Your task to perform on an android device: turn off data saver in the chrome app Image 0: 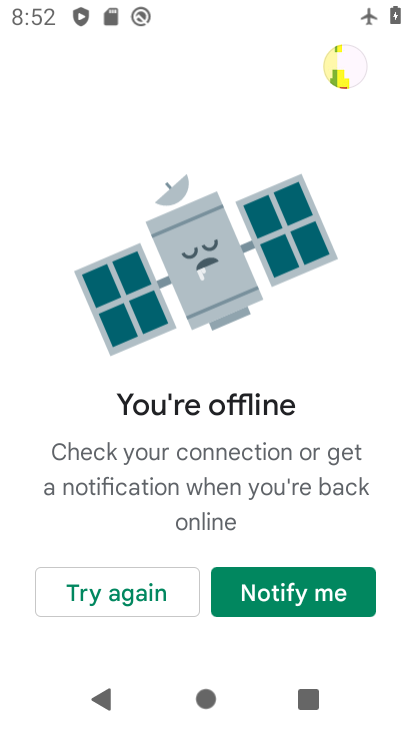
Step 0: press home button
Your task to perform on an android device: turn off data saver in the chrome app Image 1: 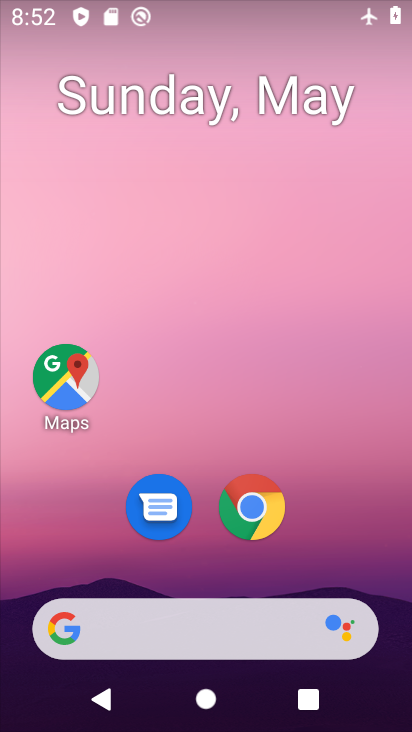
Step 1: click (244, 526)
Your task to perform on an android device: turn off data saver in the chrome app Image 2: 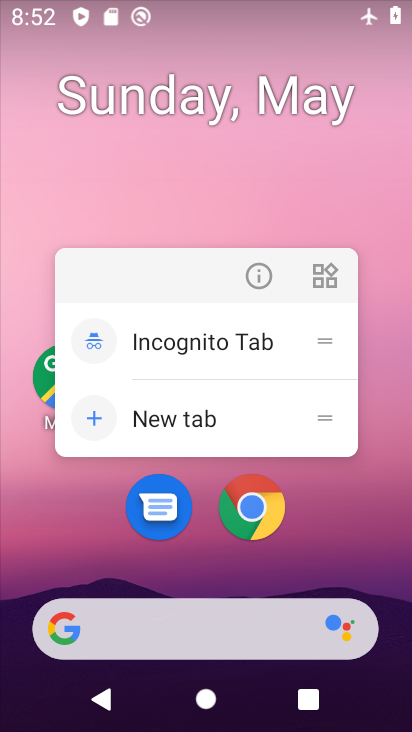
Step 2: click (254, 521)
Your task to perform on an android device: turn off data saver in the chrome app Image 3: 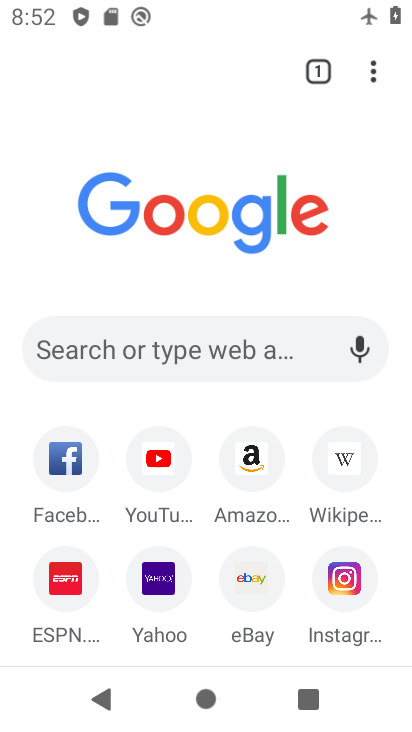
Step 3: click (373, 61)
Your task to perform on an android device: turn off data saver in the chrome app Image 4: 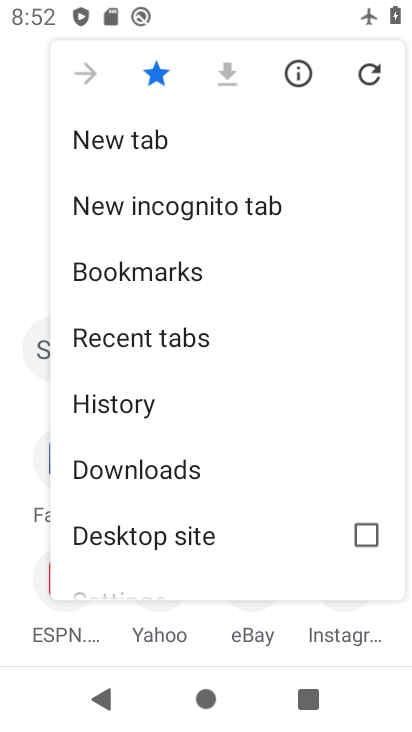
Step 4: drag from (198, 518) to (181, 372)
Your task to perform on an android device: turn off data saver in the chrome app Image 5: 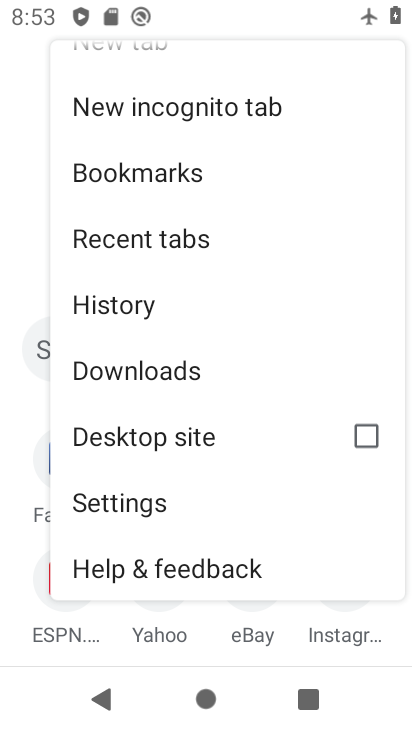
Step 5: click (149, 499)
Your task to perform on an android device: turn off data saver in the chrome app Image 6: 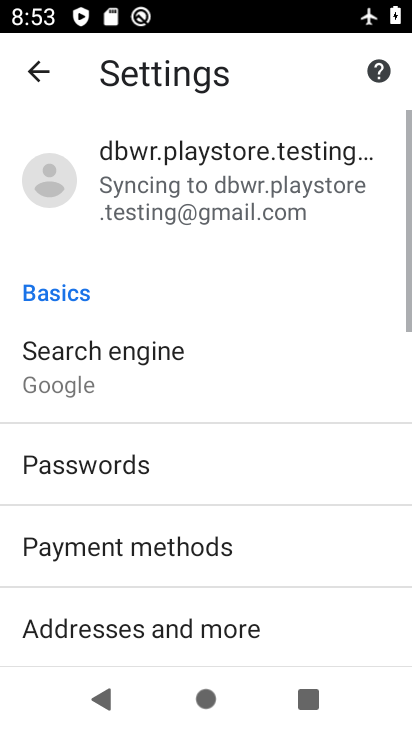
Step 6: drag from (160, 579) to (169, 332)
Your task to perform on an android device: turn off data saver in the chrome app Image 7: 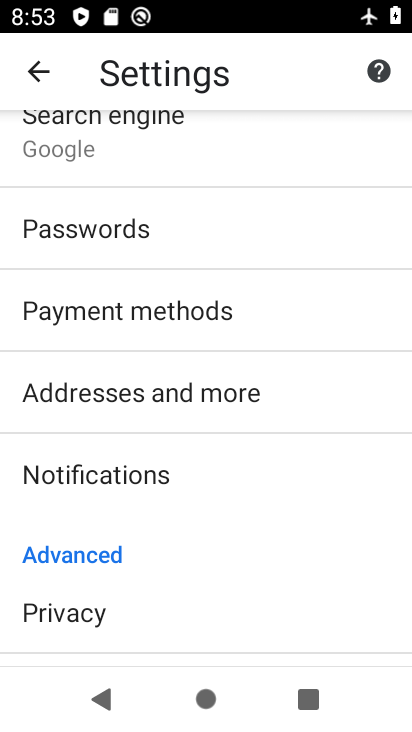
Step 7: drag from (167, 578) to (201, 236)
Your task to perform on an android device: turn off data saver in the chrome app Image 8: 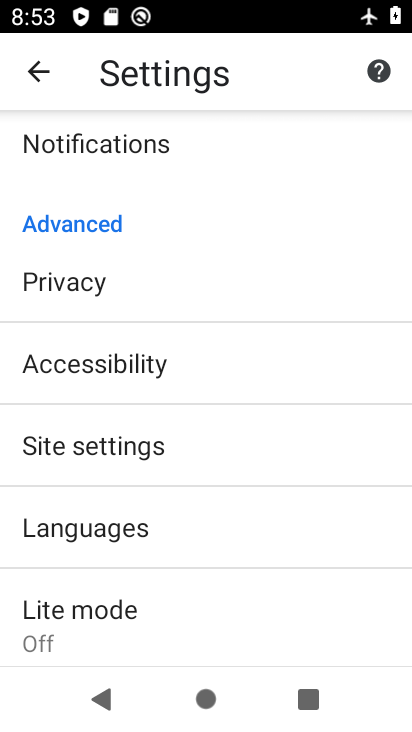
Step 8: click (108, 609)
Your task to perform on an android device: turn off data saver in the chrome app Image 9: 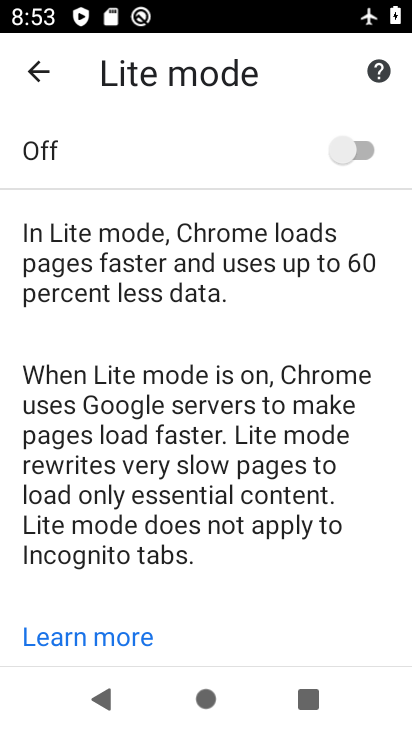
Step 9: task complete